Your task to perform on an android device: Go to battery settings Image 0: 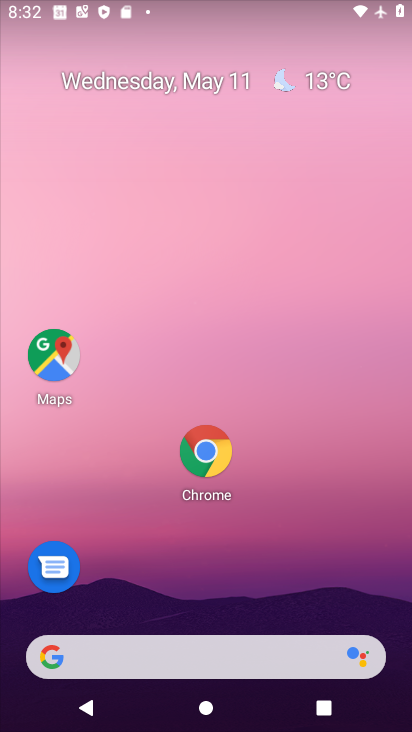
Step 0: drag from (208, 656) to (318, 82)
Your task to perform on an android device: Go to battery settings Image 1: 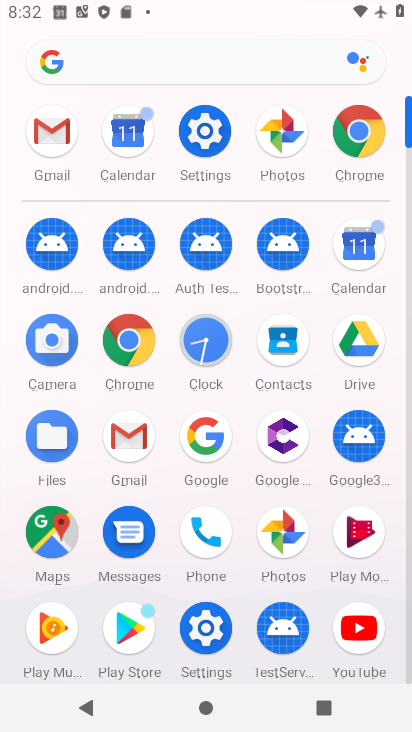
Step 1: click (210, 133)
Your task to perform on an android device: Go to battery settings Image 2: 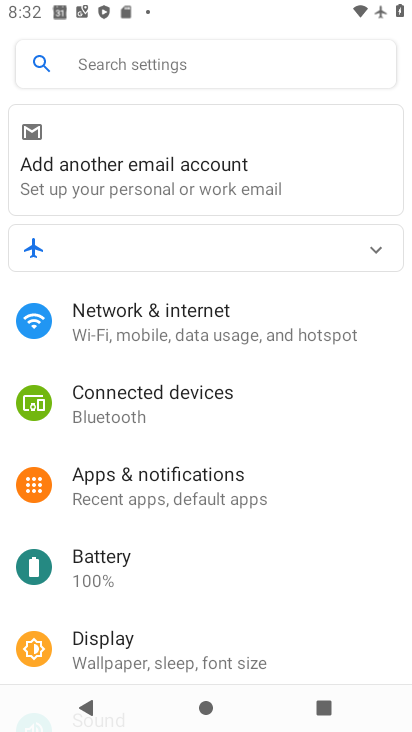
Step 2: click (98, 569)
Your task to perform on an android device: Go to battery settings Image 3: 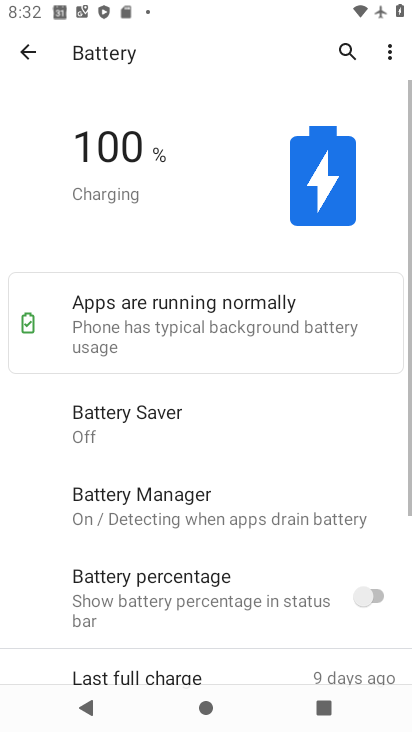
Step 3: task complete